Your task to perform on an android device: View the shopping cart on amazon. Search for "razer blade" on amazon, select the first entry, and add it to the cart. Image 0: 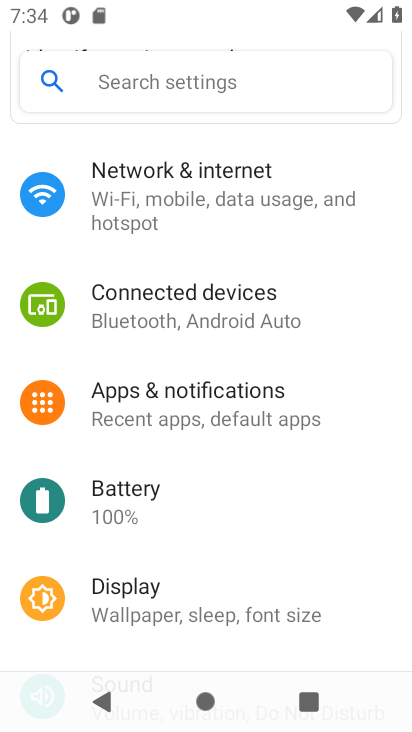
Step 0: press home button
Your task to perform on an android device: View the shopping cart on amazon. Search for "razer blade" on amazon, select the first entry, and add it to the cart. Image 1: 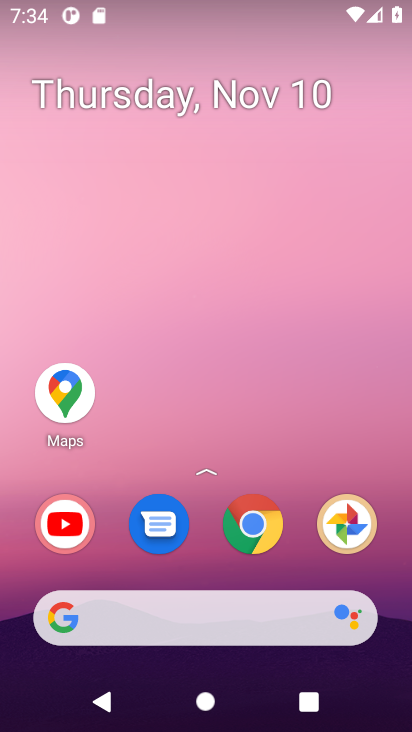
Step 1: click (253, 526)
Your task to perform on an android device: View the shopping cart on amazon. Search for "razer blade" on amazon, select the first entry, and add it to the cart. Image 2: 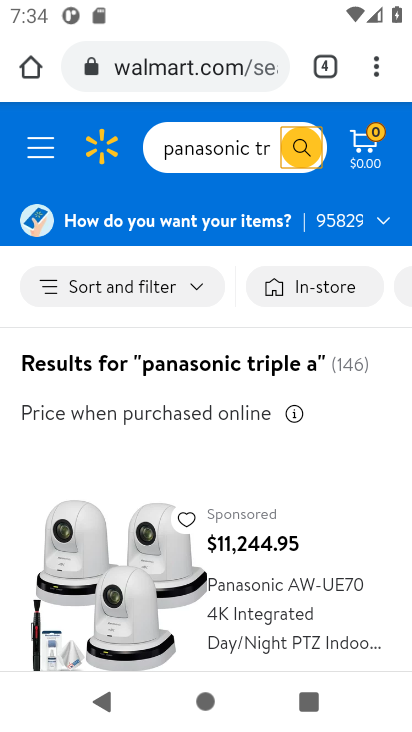
Step 2: click (323, 66)
Your task to perform on an android device: View the shopping cart on amazon. Search for "razer blade" on amazon, select the first entry, and add it to the cart. Image 3: 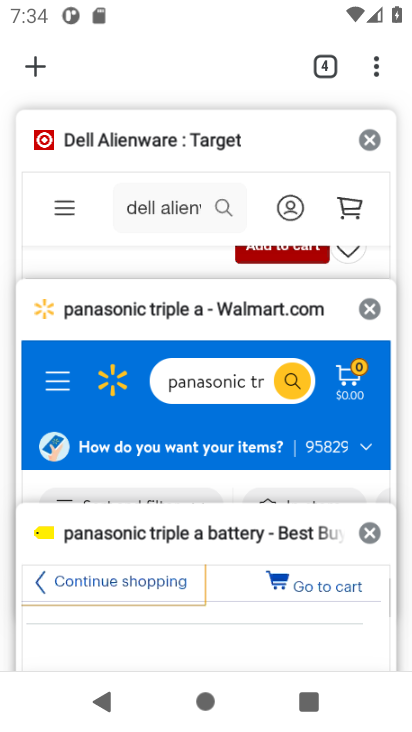
Step 3: click (34, 58)
Your task to perform on an android device: View the shopping cart on amazon. Search for "razer blade" on amazon, select the first entry, and add it to the cart. Image 4: 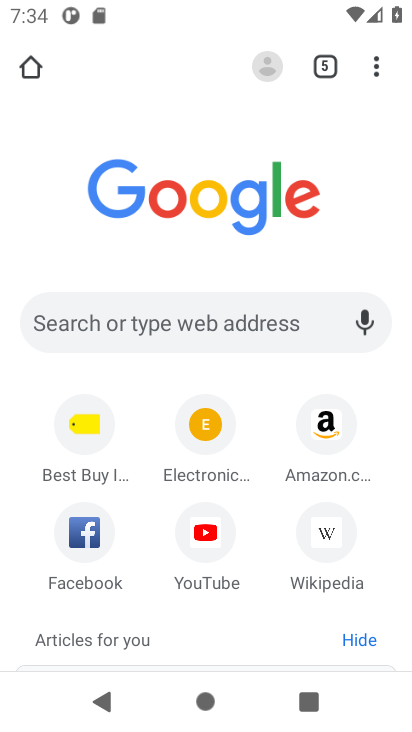
Step 4: click (326, 431)
Your task to perform on an android device: View the shopping cart on amazon. Search for "razer blade" on amazon, select the first entry, and add it to the cart. Image 5: 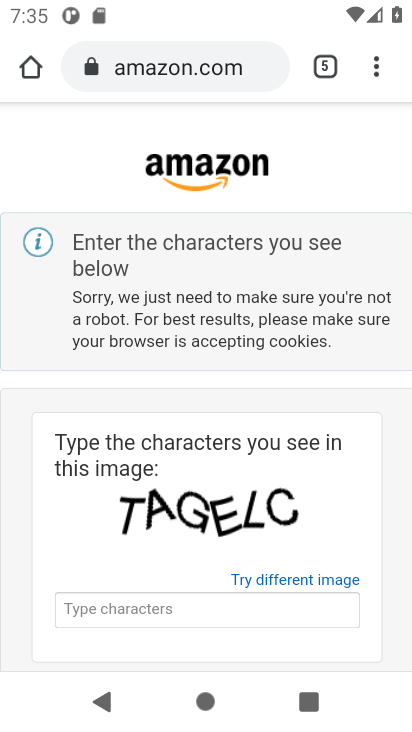
Step 5: click (145, 614)
Your task to perform on an android device: View the shopping cart on amazon. Search for "razer blade" on amazon, select the first entry, and add it to the cart. Image 6: 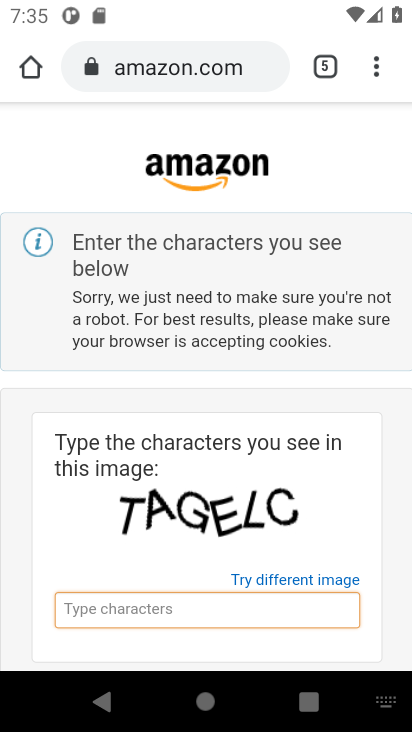
Step 6: click (91, 610)
Your task to perform on an android device: View the shopping cart on amazon. Search for "razer blade" on amazon, select the first entry, and add it to the cart. Image 7: 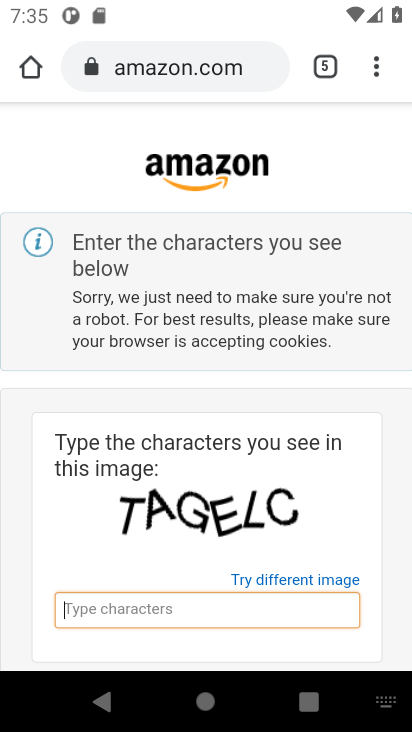
Step 7: type "TAGELC"
Your task to perform on an android device: View the shopping cart on amazon. Search for "razer blade" on amazon, select the first entry, and add it to the cart. Image 8: 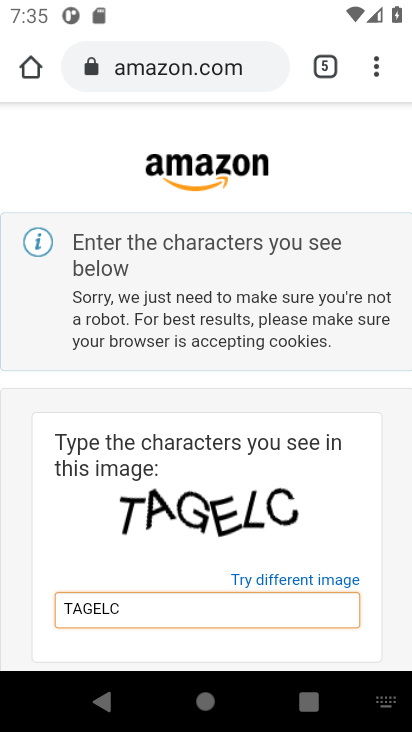
Step 8: drag from (142, 557) to (257, 167)
Your task to perform on an android device: View the shopping cart on amazon. Search for "razer blade" on amazon, select the first entry, and add it to the cart. Image 9: 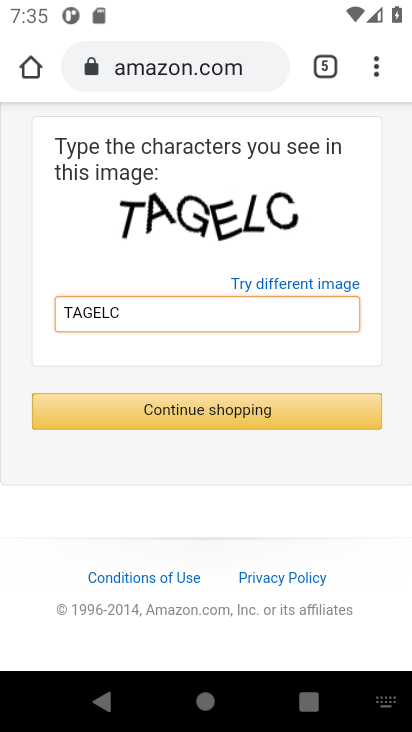
Step 9: click (192, 410)
Your task to perform on an android device: View the shopping cart on amazon. Search for "razer blade" on amazon, select the first entry, and add it to the cart. Image 10: 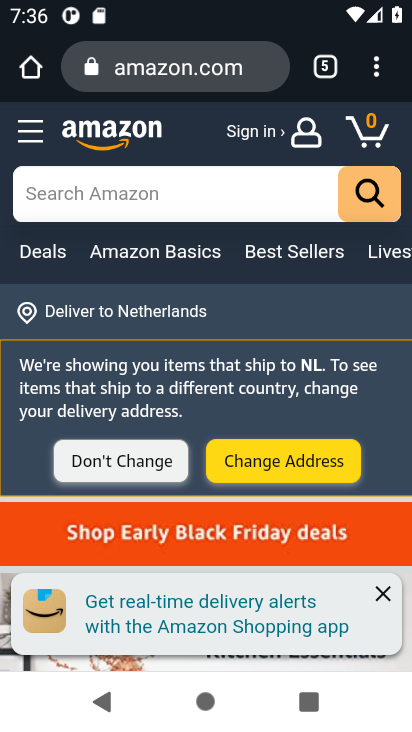
Step 10: click (76, 185)
Your task to perform on an android device: View the shopping cart on amazon. Search for "razer blade" on amazon, select the first entry, and add it to the cart. Image 11: 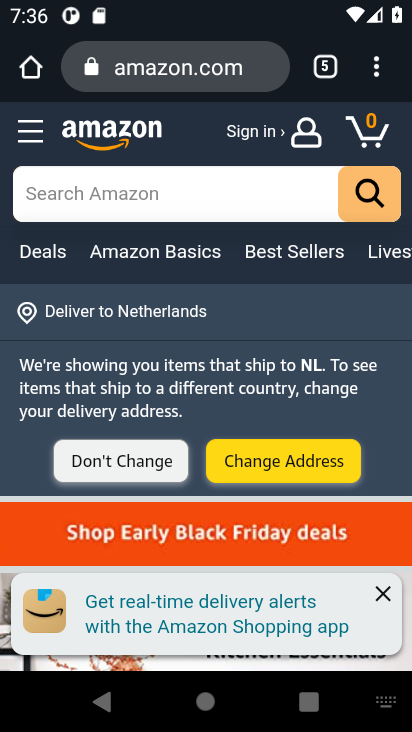
Step 11: type "razer blade"
Your task to perform on an android device: View the shopping cart on amazon. Search for "razer blade" on amazon, select the first entry, and add it to the cart. Image 12: 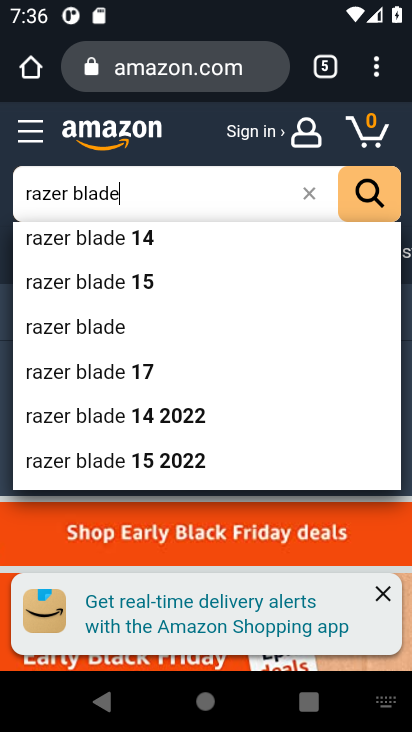
Step 12: click (99, 327)
Your task to perform on an android device: View the shopping cart on amazon. Search for "razer blade" on amazon, select the first entry, and add it to the cart. Image 13: 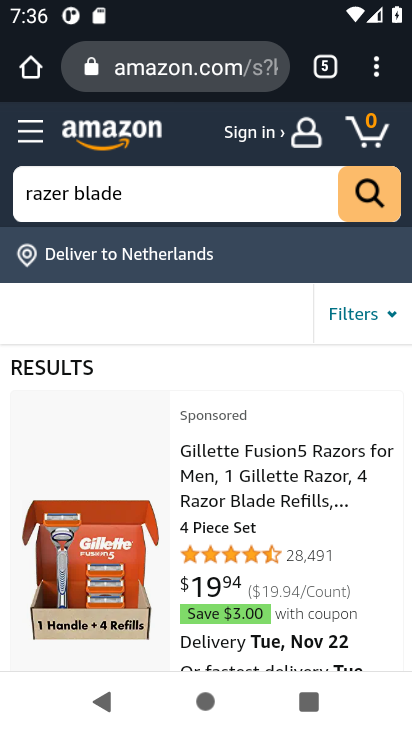
Step 13: drag from (300, 537) to (324, 427)
Your task to perform on an android device: View the shopping cart on amazon. Search for "razer blade" on amazon, select the first entry, and add it to the cart. Image 14: 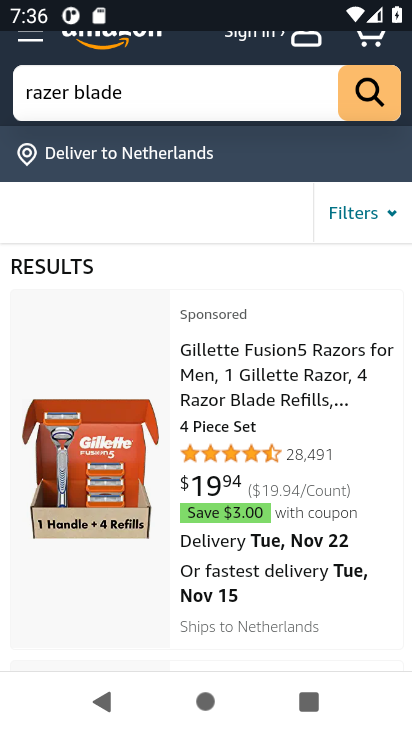
Step 14: click (280, 375)
Your task to perform on an android device: View the shopping cart on amazon. Search for "razer blade" on amazon, select the first entry, and add it to the cart. Image 15: 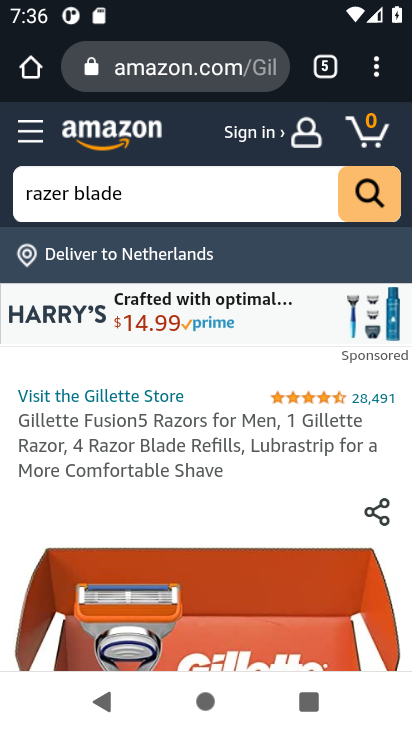
Step 15: drag from (204, 555) to (368, 55)
Your task to perform on an android device: View the shopping cart on amazon. Search for "razer blade" on amazon, select the first entry, and add it to the cart. Image 16: 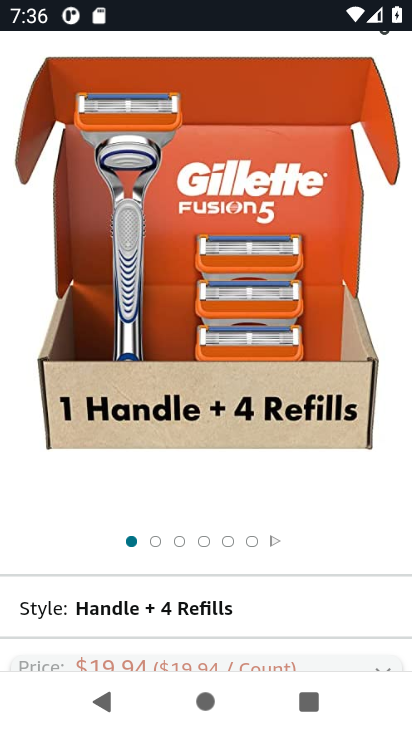
Step 16: drag from (295, 566) to (373, 118)
Your task to perform on an android device: View the shopping cart on amazon. Search for "razer blade" on amazon, select the first entry, and add it to the cart. Image 17: 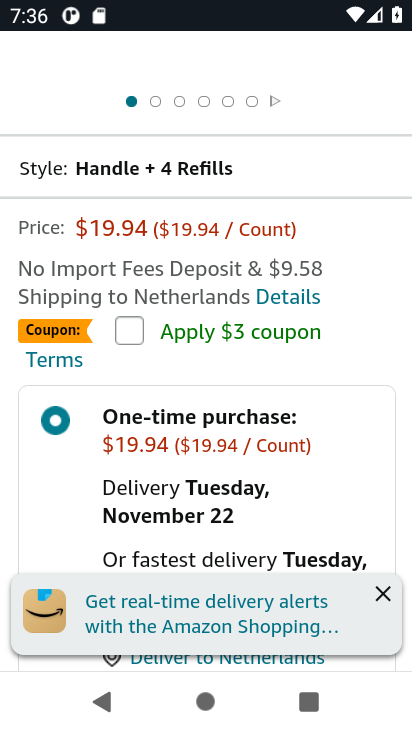
Step 17: drag from (312, 478) to (386, 59)
Your task to perform on an android device: View the shopping cart on amazon. Search for "razer blade" on amazon, select the first entry, and add it to the cart. Image 18: 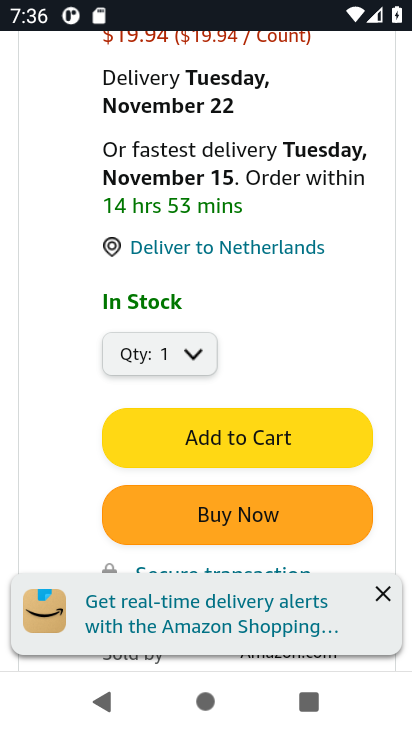
Step 18: click (262, 439)
Your task to perform on an android device: View the shopping cart on amazon. Search for "razer blade" on amazon, select the first entry, and add it to the cart. Image 19: 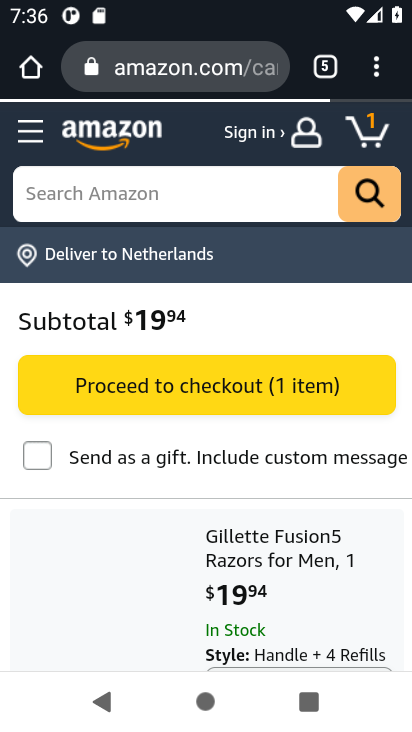
Step 19: task complete